Your task to perform on an android device: turn pop-ups on in chrome Image 0: 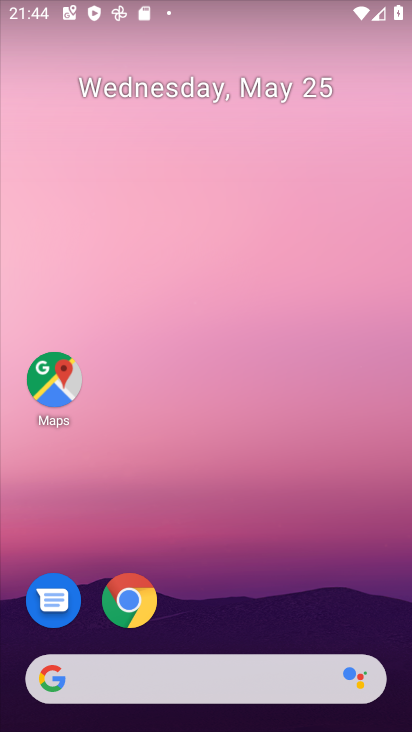
Step 0: drag from (355, 529) to (313, 73)
Your task to perform on an android device: turn pop-ups on in chrome Image 1: 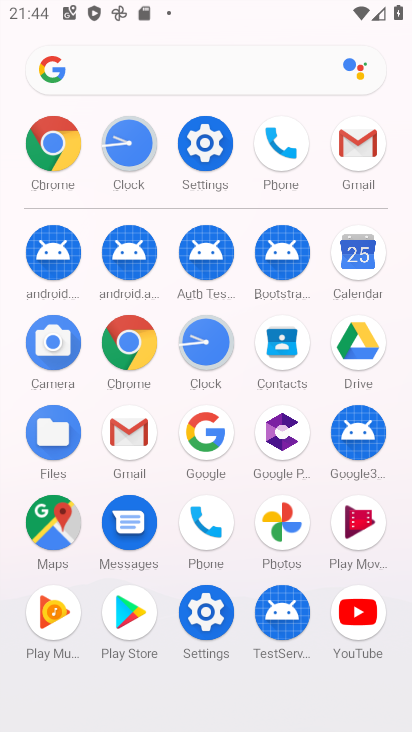
Step 1: click (127, 353)
Your task to perform on an android device: turn pop-ups on in chrome Image 2: 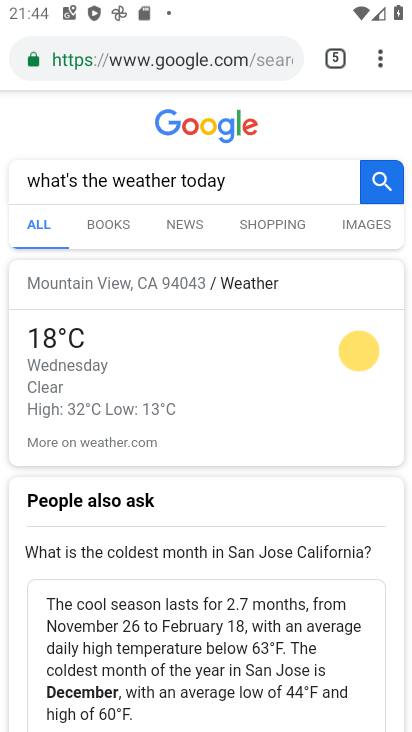
Step 2: click (253, 168)
Your task to perform on an android device: turn pop-ups on in chrome Image 3: 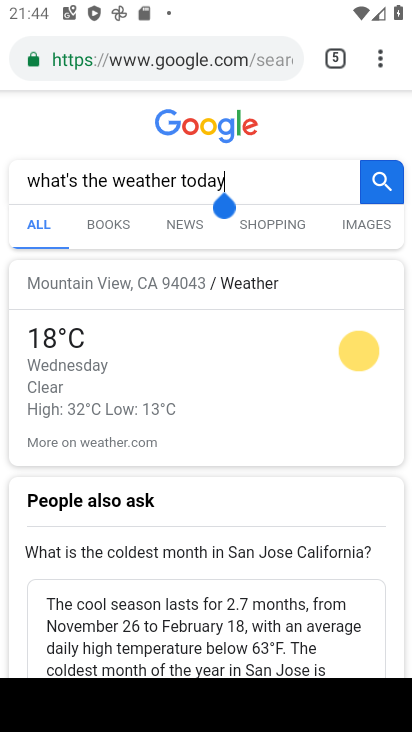
Step 3: drag from (378, 55) to (266, 578)
Your task to perform on an android device: turn pop-ups on in chrome Image 4: 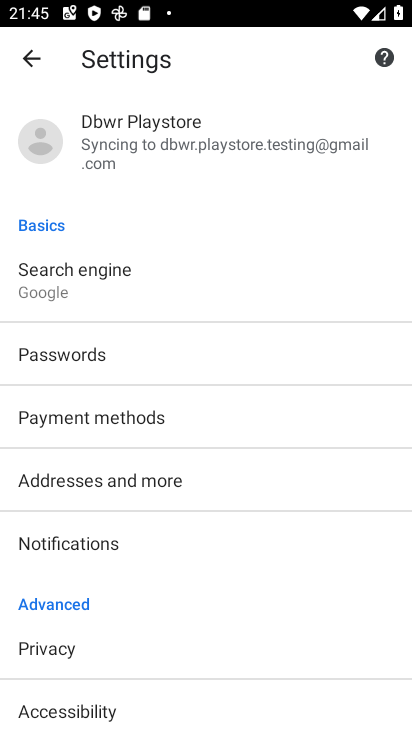
Step 4: drag from (250, 603) to (236, 329)
Your task to perform on an android device: turn pop-ups on in chrome Image 5: 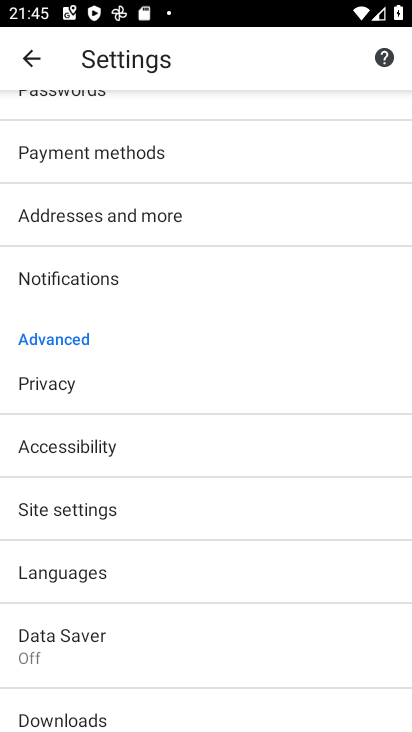
Step 5: click (121, 530)
Your task to perform on an android device: turn pop-ups on in chrome Image 6: 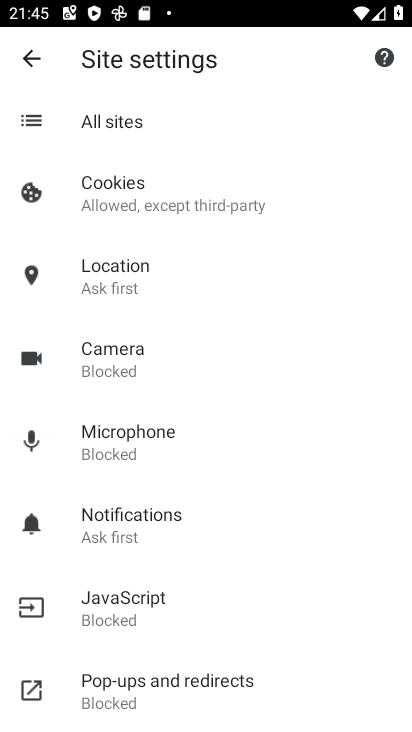
Step 6: click (182, 668)
Your task to perform on an android device: turn pop-ups on in chrome Image 7: 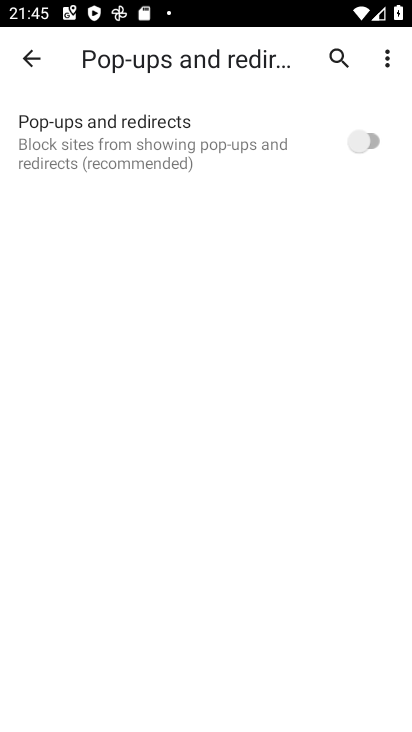
Step 7: click (372, 140)
Your task to perform on an android device: turn pop-ups on in chrome Image 8: 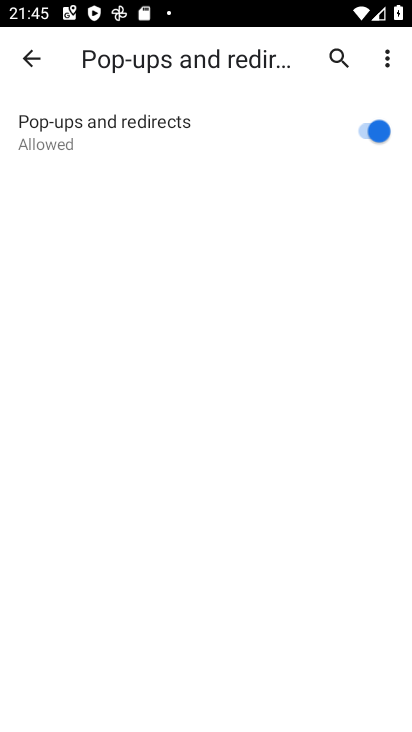
Step 8: task complete